Your task to perform on an android device: Open Google Maps and go to "Timeline" Image 0: 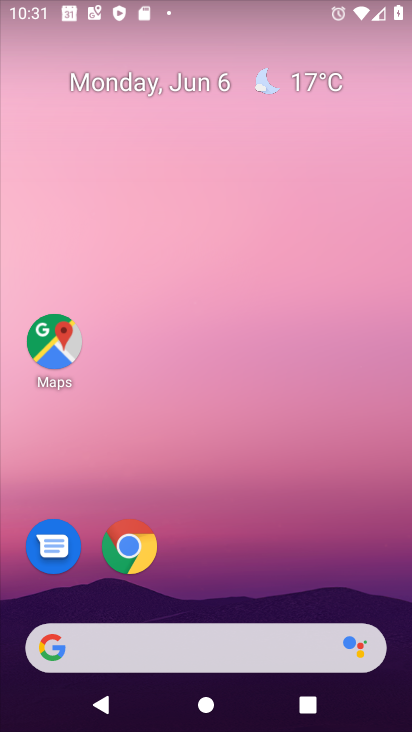
Step 0: click (58, 336)
Your task to perform on an android device: Open Google Maps and go to "Timeline" Image 1: 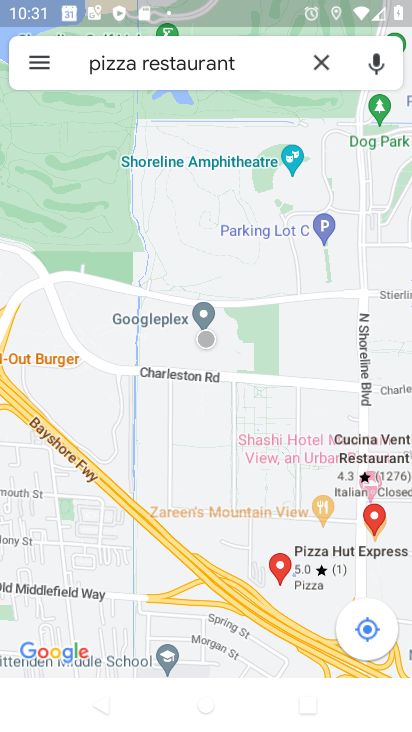
Step 1: drag from (156, 167) to (154, 450)
Your task to perform on an android device: Open Google Maps and go to "Timeline" Image 2: 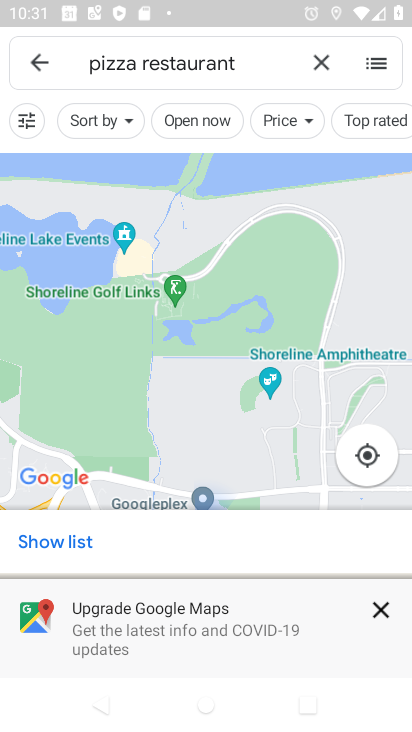
Step 2: click (43, 56)
Your task to perform on an android device: Open Google Maps and go to "Timeline" Image 3: 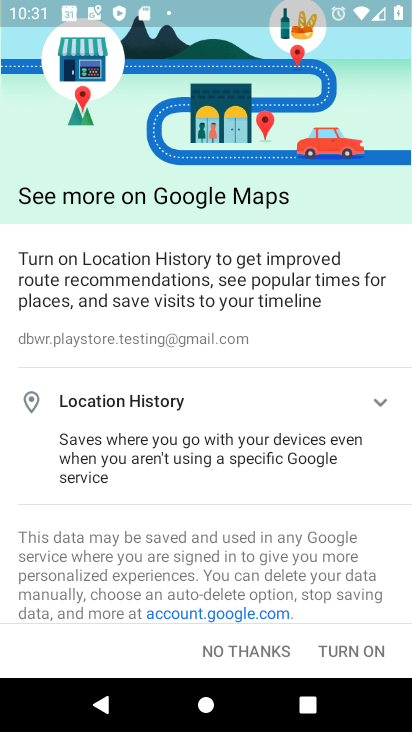
Step 3: click (234, 645)
Your task to perform on an android device: Open Google Maps and go to "Timeline" Image 4: 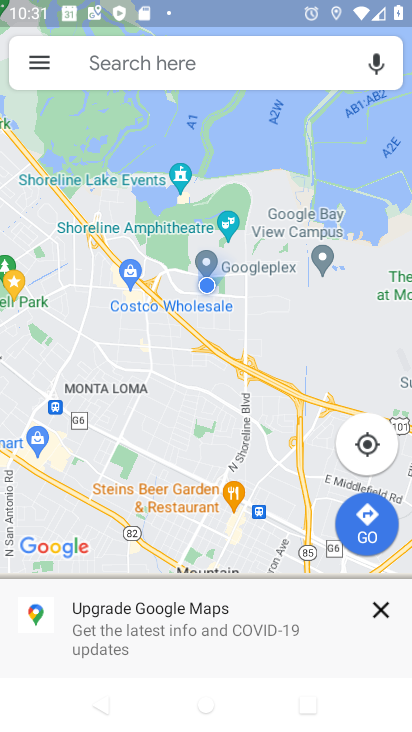
Step 4: click (42, 69)
Your task to perform on an android device: Open Google Maps and go to "Timeline" Image 5: 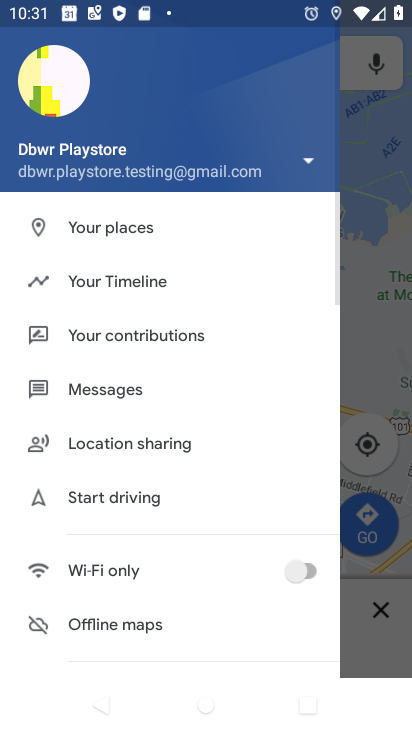
Step 5: click (122, 286)
Your task to perform on an android device: Open Google Maps and go to "Timeline" Image 6: 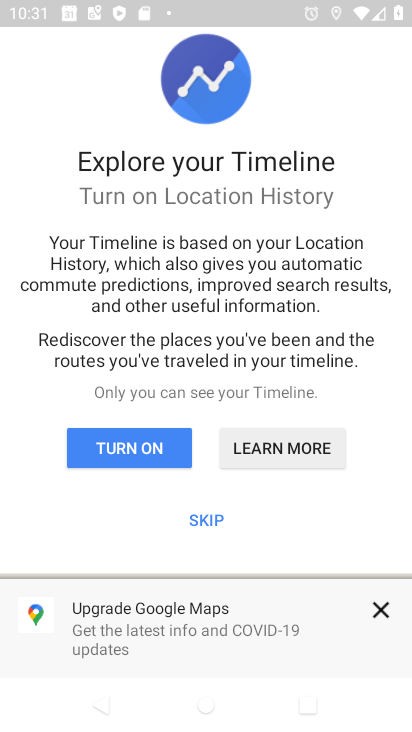
Step 6: click (202, 515)
Your task to perform on an android device: Open Google Maps and go to "Timeline" Image 7: 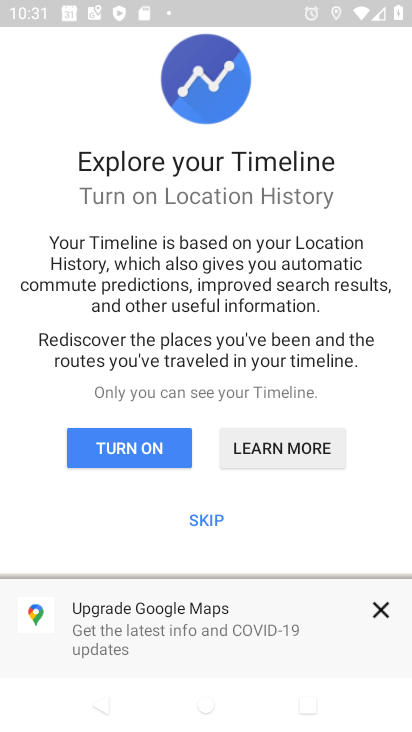
Step 7: click (378, 603)
Your task to perform on an android device: Open Google Maps and go to "Timeline" Image 8: 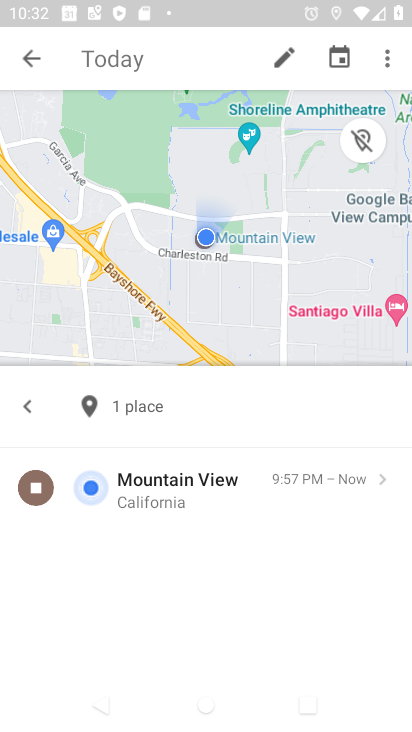
Step 8: task complete